Your task to perform on an android device: find snoozed emails in the gmail app Image 0: 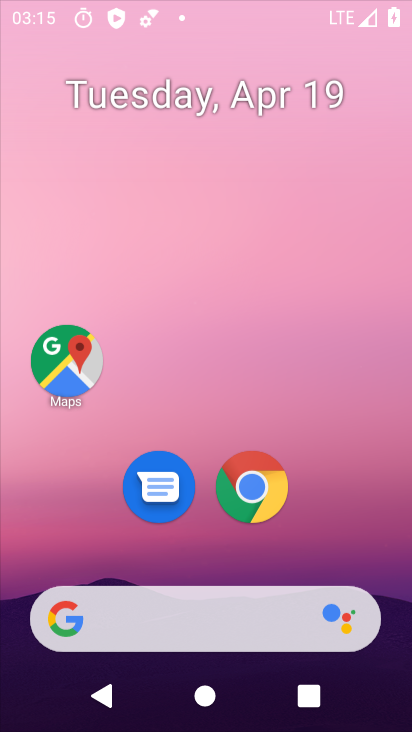
Step 0: click (80, 346)
Your task to perform on an android device: find snoozed emails in the gmail app Image 1: 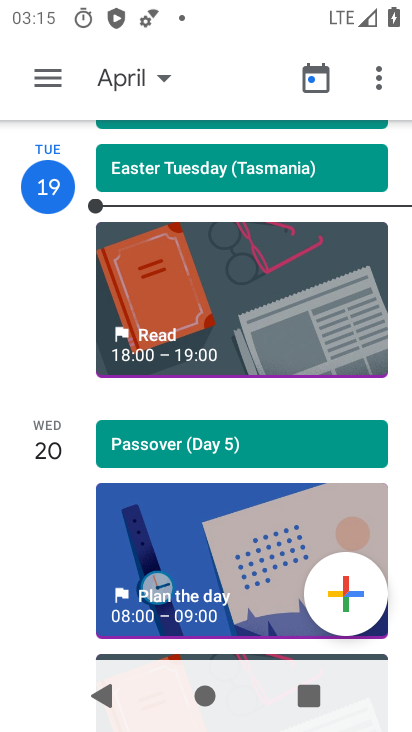
Step 1: press home button
Your task to perform on an android device: find snoozed emails in the gmail app Image 2: 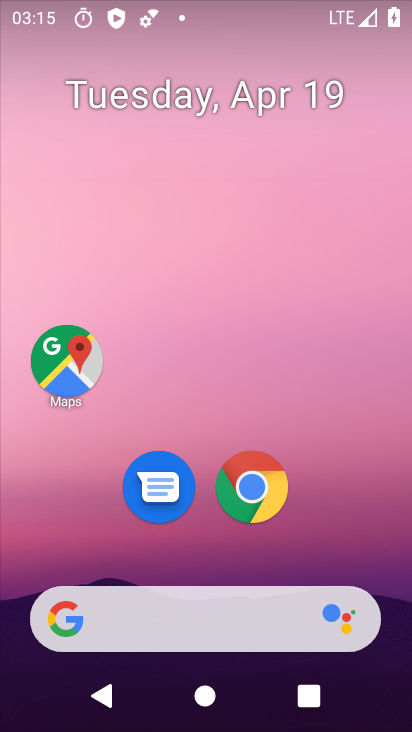
Step 2: drag from (188, 416) to (217, 12)
Your task to perform on an android device: find snoozed emails in the gmail app Image 3: 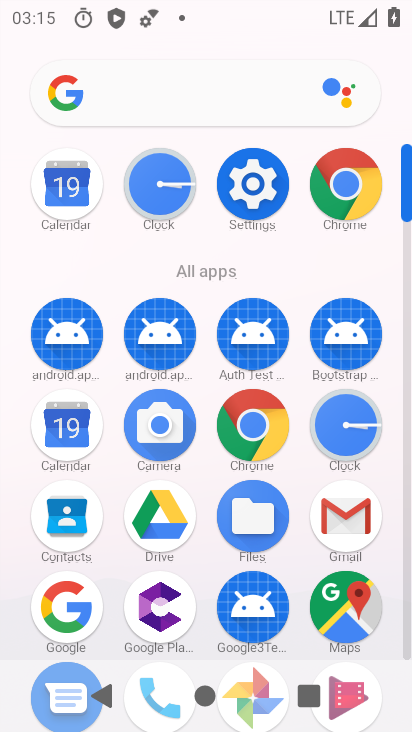
Step 3: click (336, 512)
Your task to perform on an android device: find snoozed emails in the gmail app Image 4: 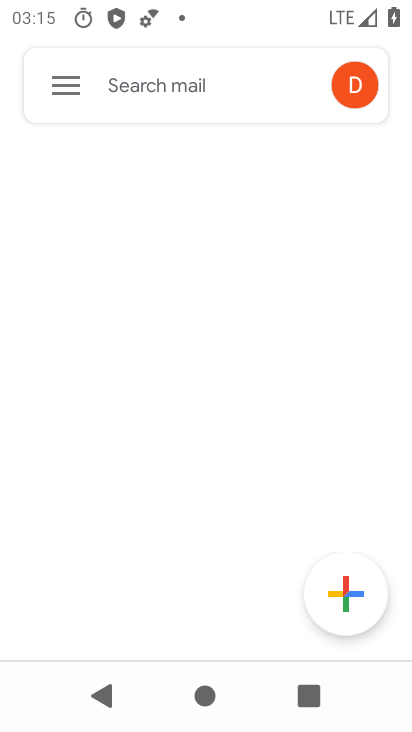
Step 4: click (81, 83)
Your task to perform on an android device: find snoozed emails in the gmail app Image 5: 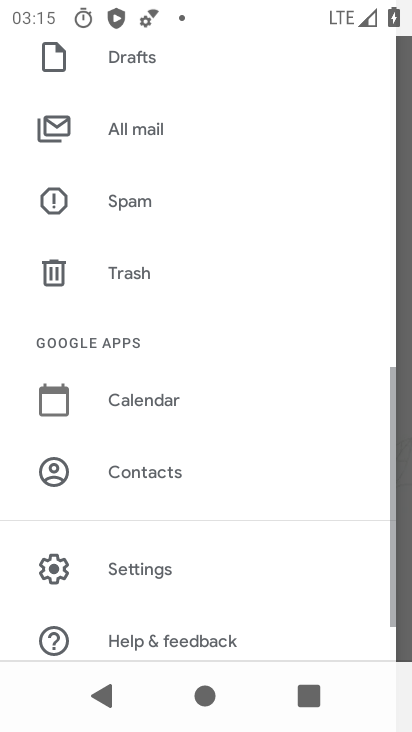
Step 5: drag from (214, 116) to (194, 601)
Your task to perform on an android device: find snoozed emails in the gmail app Image 6: 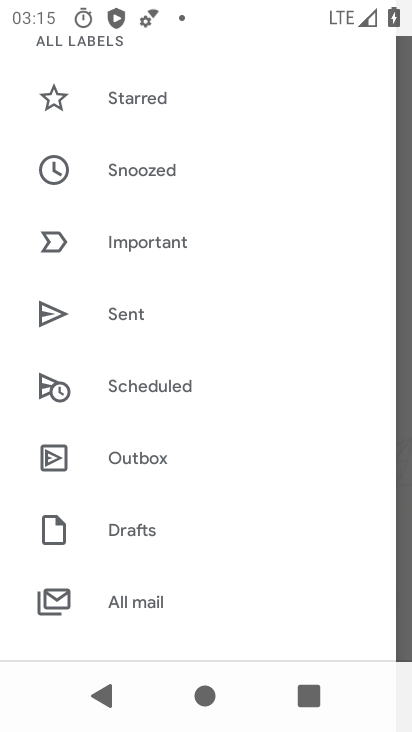
Step 6: click (140, 175)
Your task to perform on an android device: find snoozed emails in the gmail app Image 7: 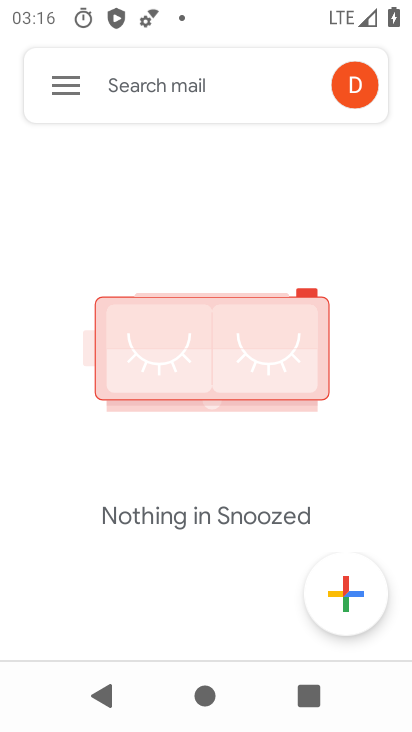
Step 7: task complete